Your task to perform on an android device: Search for pizza restaurants on Maps Image 0: 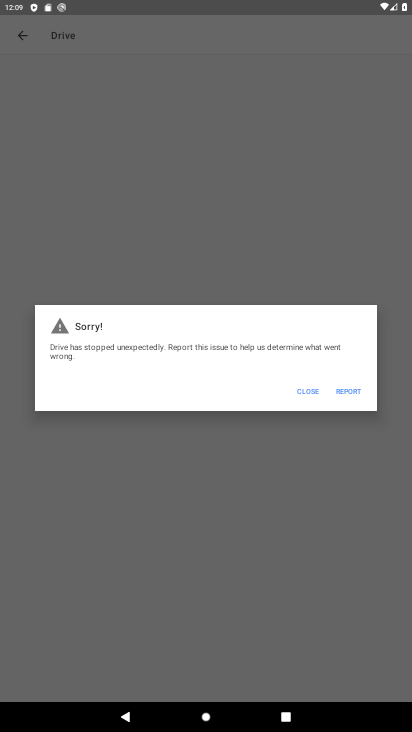
Step 0: press home button
Your task to perform on an android device: Search for pizza restaurants on Maps Image 1: 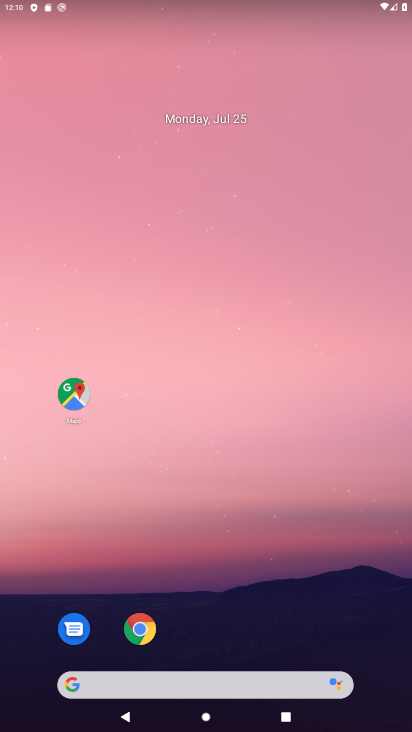
Step 1: drag from (224, 638) to (173, 126)
Your task to perform on an android device: Search for pizza restaurants on Maps Image 2: 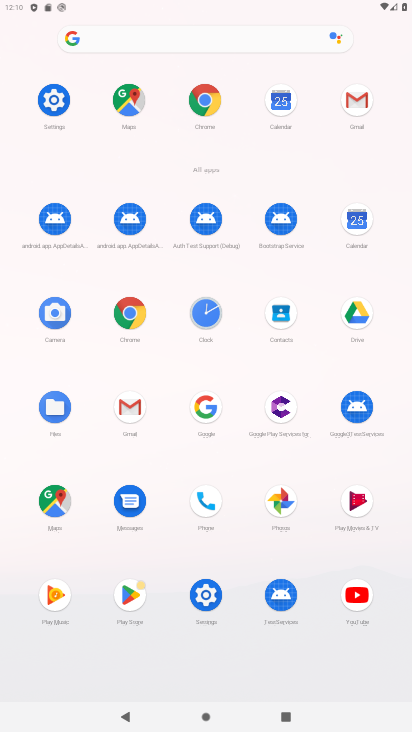
Step 2: click (128, 109)
Your task to perform on an android device: Search for pizza restaurants on Maps Image 3: 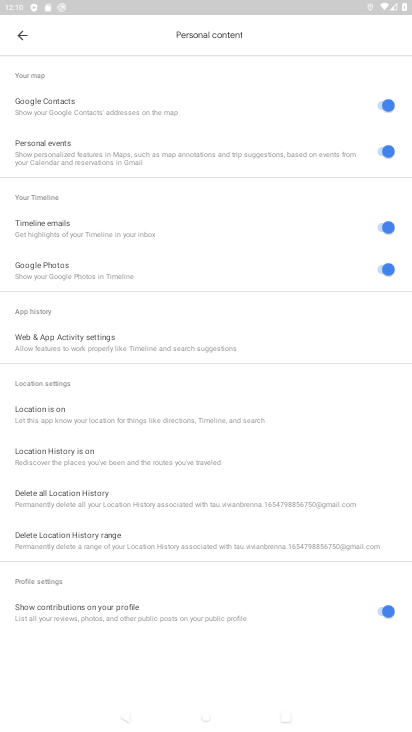
Step 3: click (21, 39)
Your task to perform on an android device: Search for pizza restaurants on Maps Image 4: 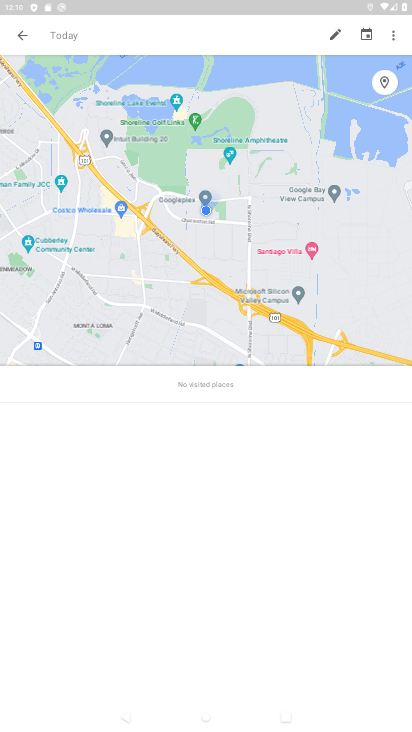
Step 4: click (21, 39)
Your task to perform on an android device: Search for pizza restaurants on Maps Image 5: 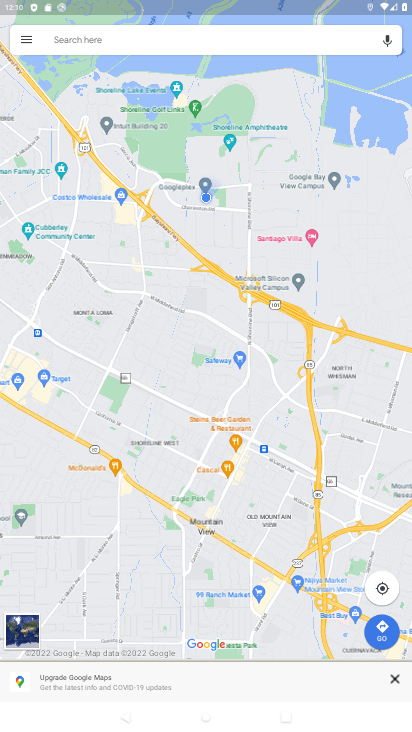
Step 5: click (164, 33)
Your task to perform on an android device: Search for pizza restaurants on Maps Image 6: 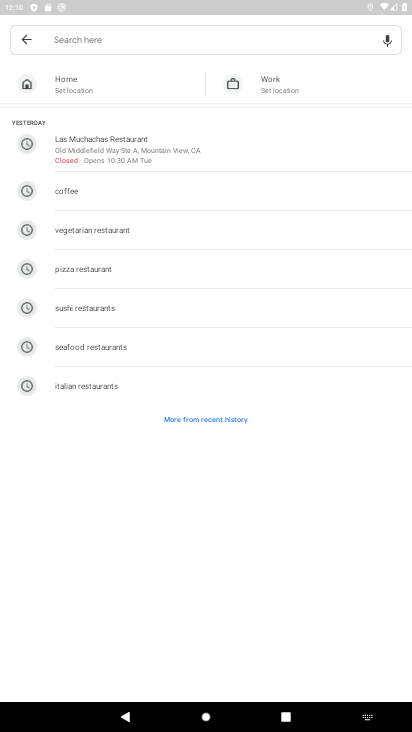
Step 6: click (145, 268)
Your task to perform on an android device: Search for pizza restaurants on Maps Image 7: 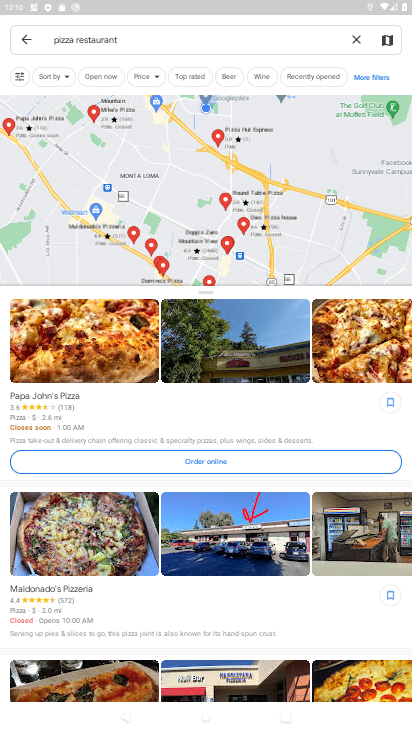
Step 7: task complete